Your task to perform on an android device: Find coffee shops on Maps Image 0: 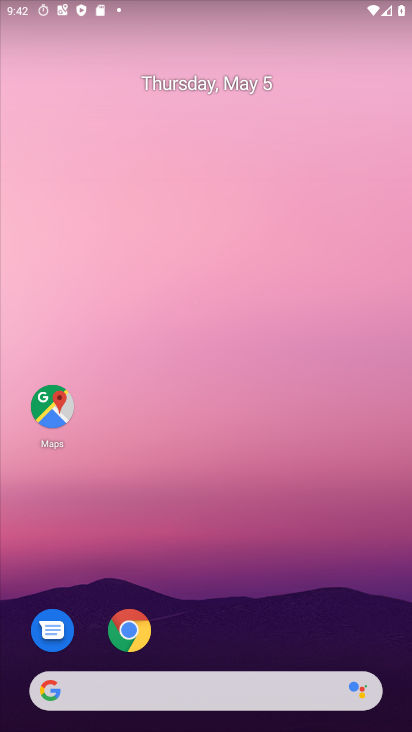
Step 0: click (41, 406)
Your task to perform on an android device: Find coffee shops on Maps Image 1: 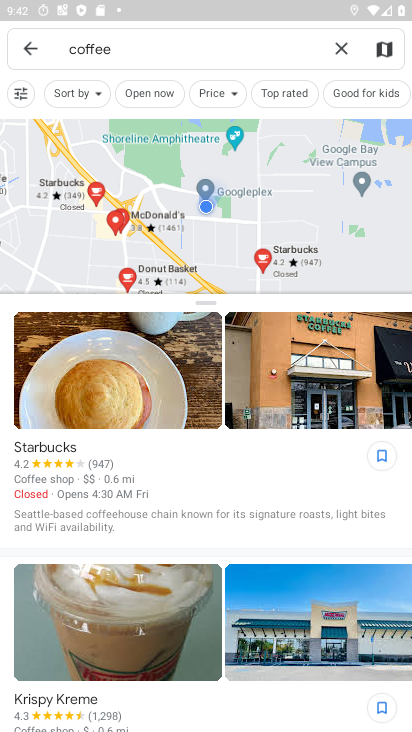
Step 1: task complete